Your task to perform on an android device: turn on translation in the chrome app Image 0: 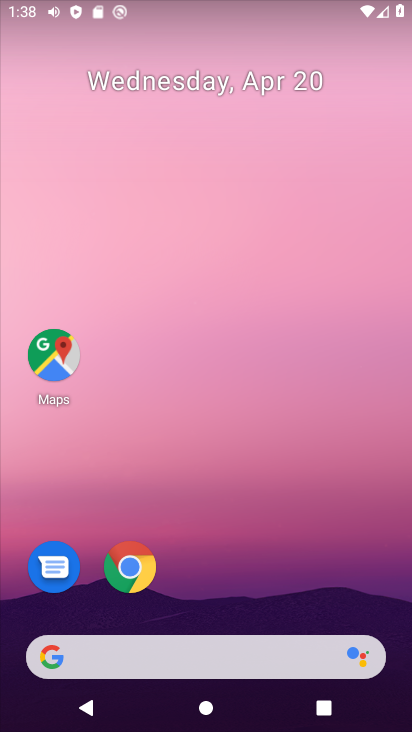
Step 0: click (129, 567)
Your task to perform on an android device: turn on translation in the chrome app Image 1: 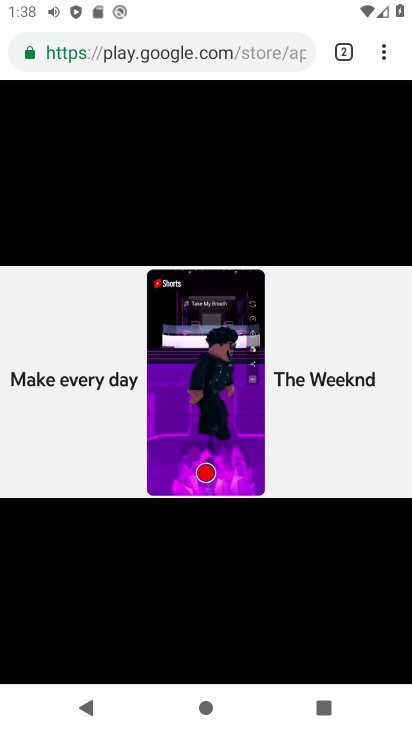
Step 1: click (388, 51)
Your task to perform on an android device: turn on translation in the chrome app Image 2: 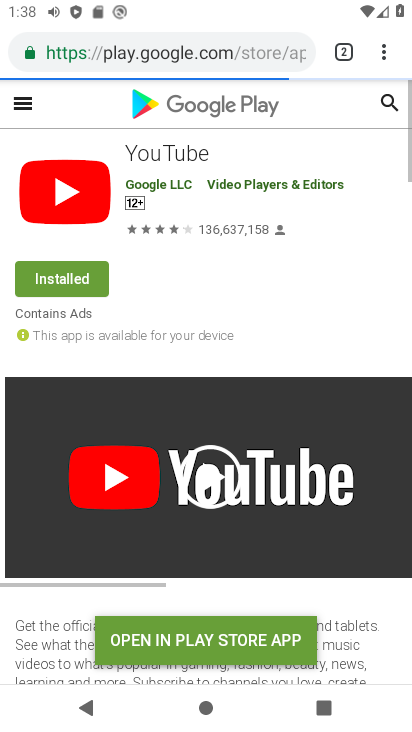
Step 2: drag from (383, 54) to (216, 608)
Your task to perform on an android device: turn on translation in the chrome app Image 3: 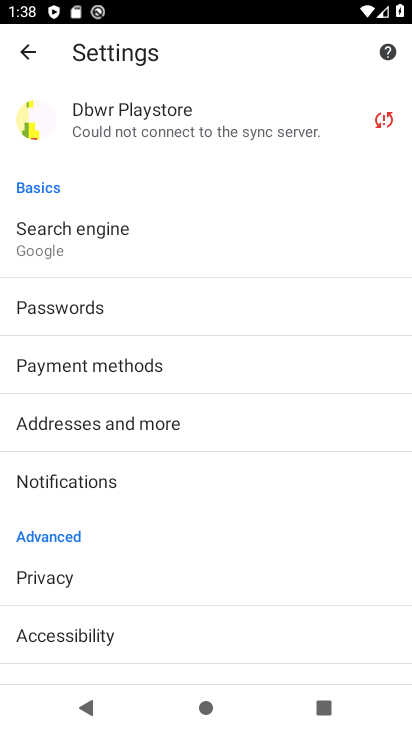
Step 3: drag from (143, 631) to (131, 172)
Your task to perform on an android device: turn on translation in the chrome app Image 4: 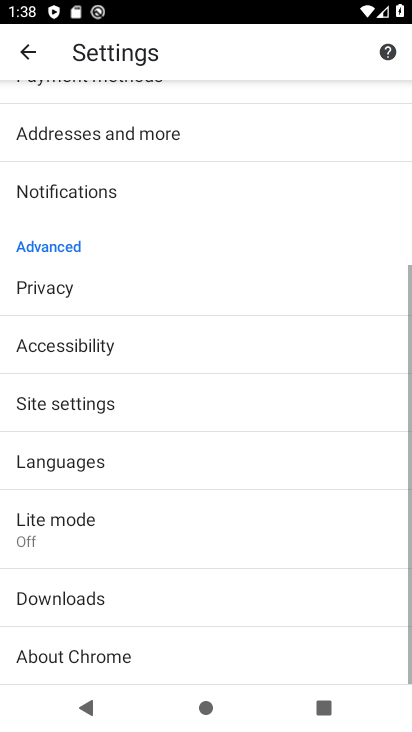
Step 4: click (83, 465)
Your task to perform on an android device: turn on translation in the chrome app Image 5: 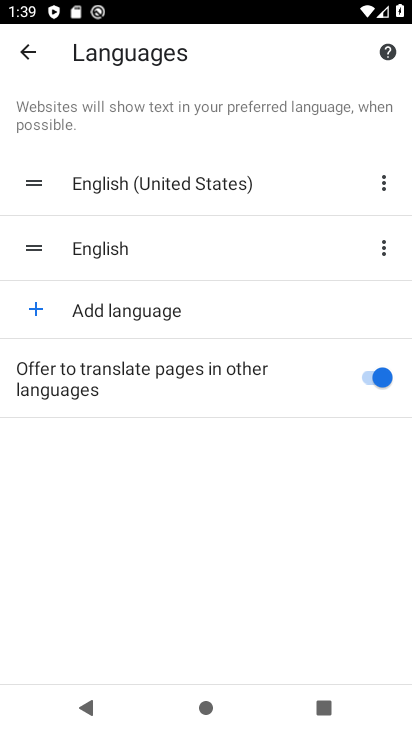
Step 5: task complete